Your task to perform on an android device: toggle javascript in the chrome app Image 0: 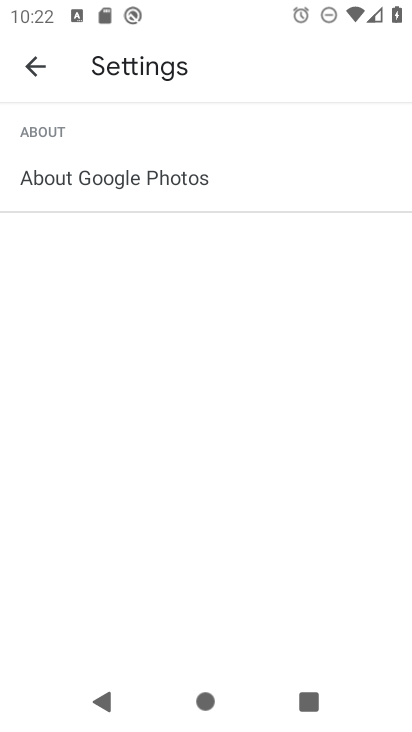
Step 0: press home button
Your task to perform on an android device: toggle javascript in the chrome app Image 1: 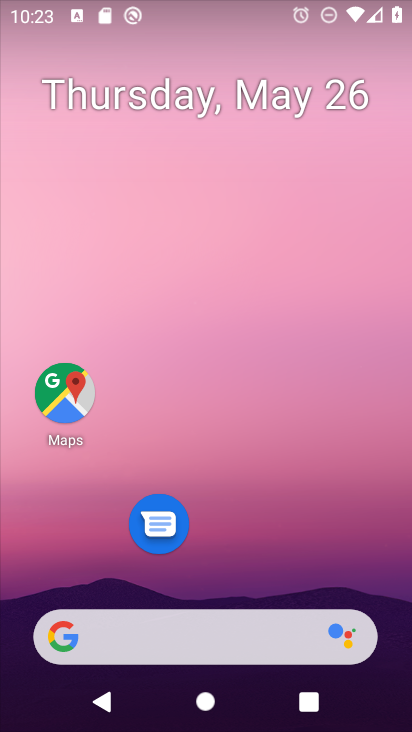
Step 1: drag from (248, 572) to (224, 65)
Your task to perform on an android device: toggle javascript in the chrome app Image 2: 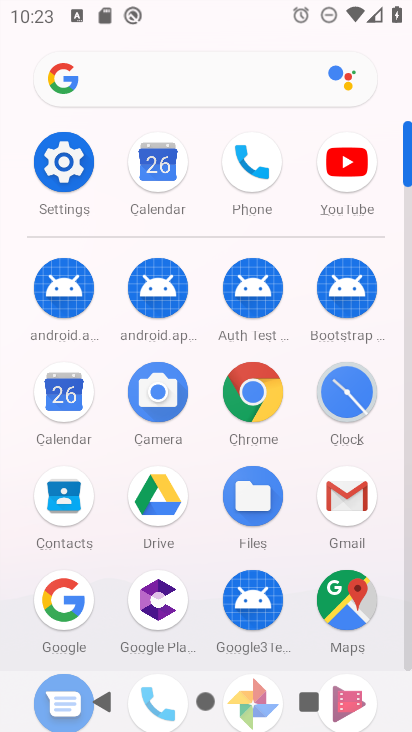
Step 2: drag from (256, 408) to (292, 470)
Your task to perform on an android device: toggle javascript in the chrome app Image 3: 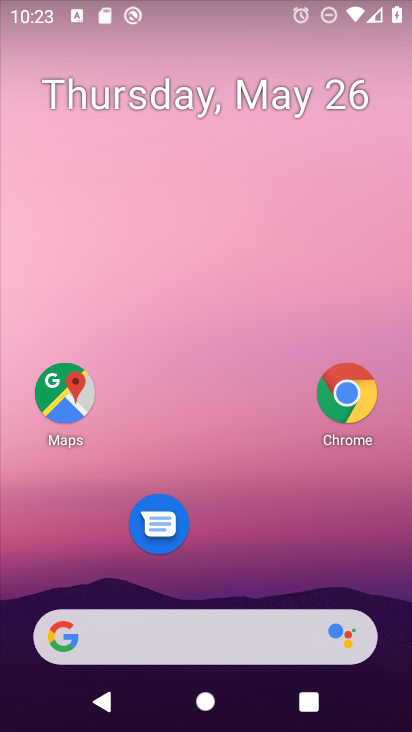
Step 3: click (362, 386)
Your task to perform on an android device: toggle javascript in the chrome app Image 4: 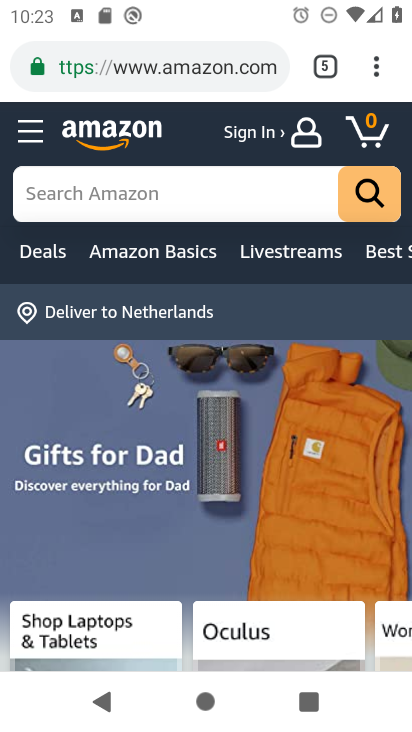
Step 4: click (371, 65)
Your task to perform on an android device: toggle javascript in the chrome app Image 5: 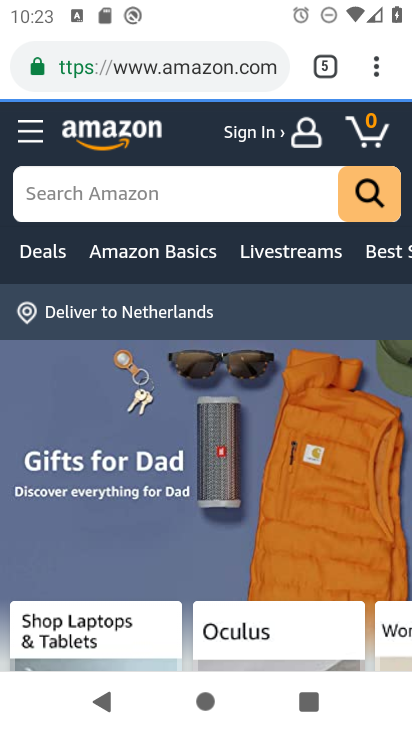
Step 5: click (371, 67)
Your task to perform on an android device: toggle javascript in the chrome app Image 6: 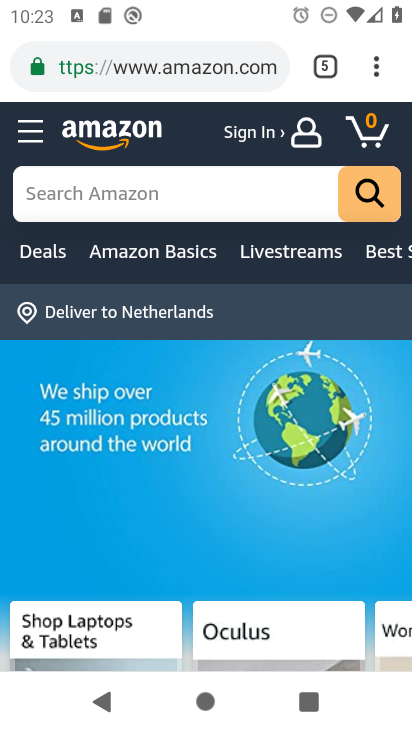
Step 6: click (371, 67)
Your task to perform on an android device: toggle javascript in the chrome app Image 7: 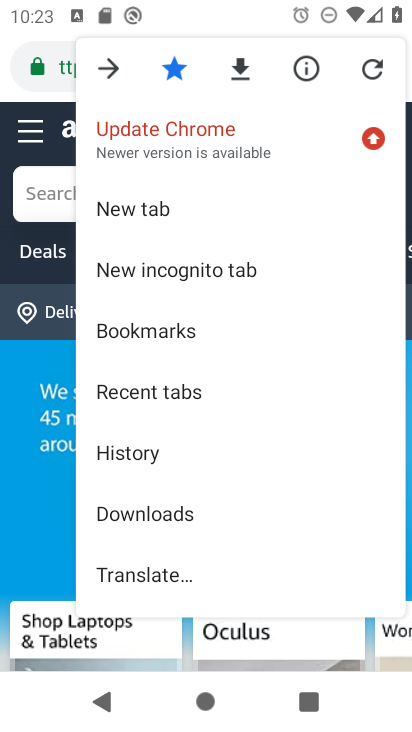
Step 7: drag from (268, 436) to (267, 153)
Your task to perform on an android device: toggle javascript in the chrome app Image 8: 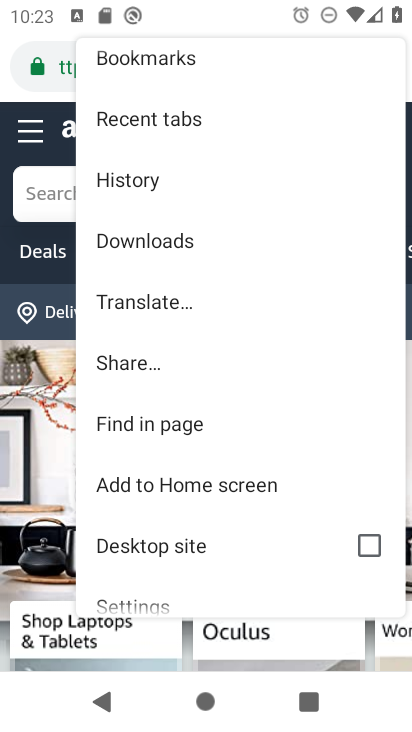
Step 8: drag from (246, 396) to (218, 175)
Your task to perform on an android device: toggle javascript in the chrome app Image 9: 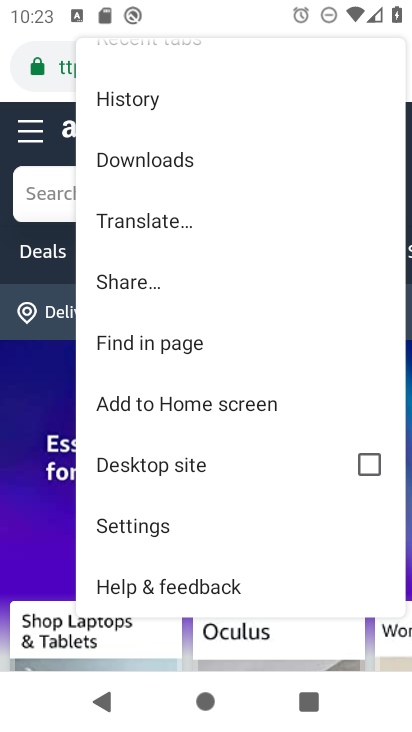
Step 9: click (186, 522)
Your task to perform on an android device: toggle javascript in the chrome app Image 10: 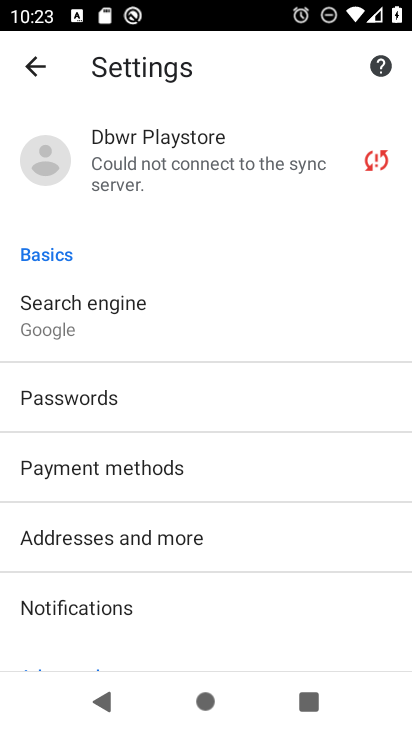
Step 10: drag from (264, 485) to (254, 187)
Your task to perform on an android device: toggle javascript in the chrome app Image 11: 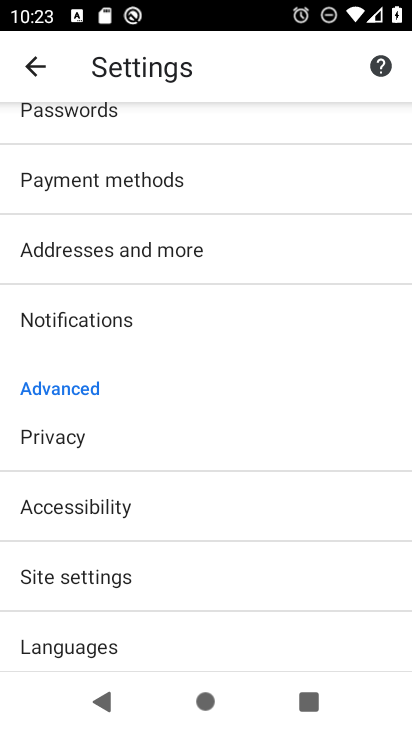
Step 11: click (214, 578)
Your task to perform on an android device: toggle javascript in the chrome app Image 12: 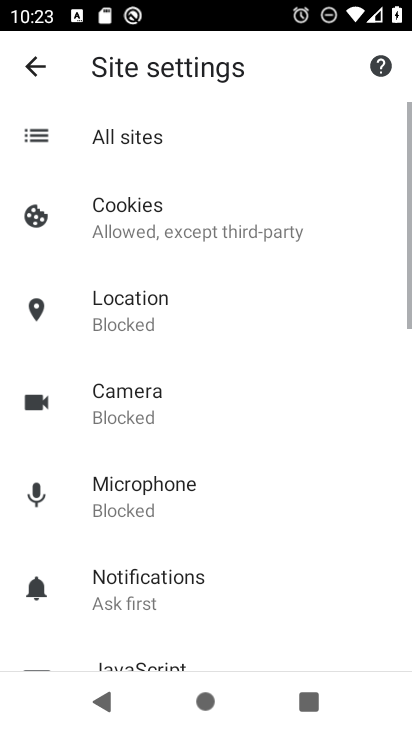
Step 12: drag from (269, 549) to (271, 217)
Your task to perform on an android device: toggle javascript in the chrome app Image 13: 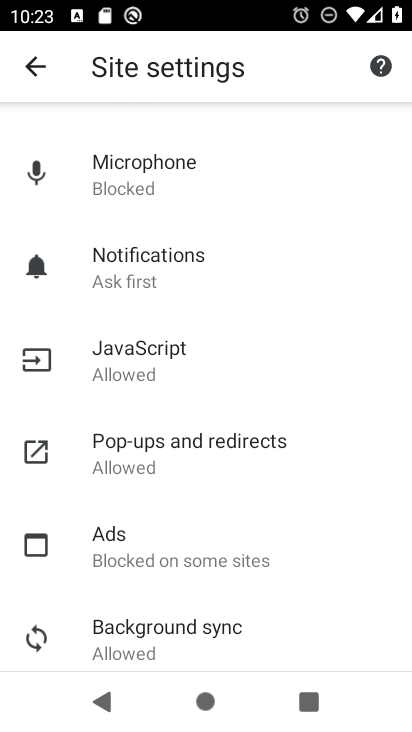
Step 13: click (215, 356)
Your task to perform on an android device: toggle javascript in the chrome app Image 14: 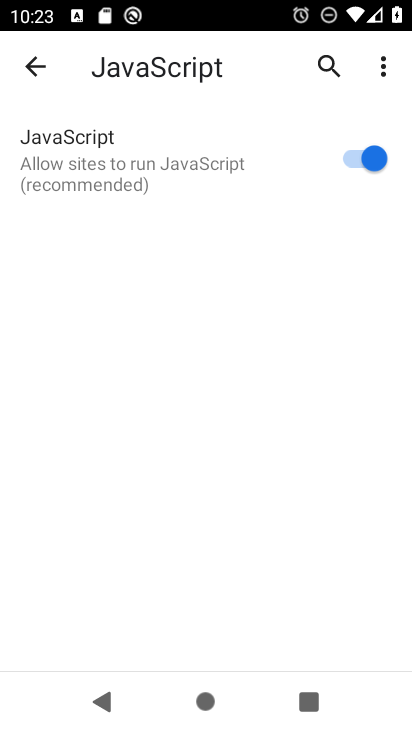
Step 14: click (358, 157)
Your task to perform on an android device: toggle javascript in the chrome app Image 15: 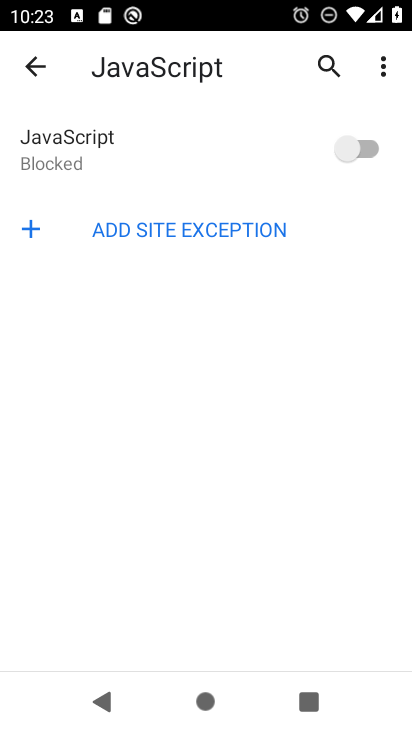
Step 15: task complete